Your task to perform on an android device: toggle notifications settings in the gmail app Image 0: 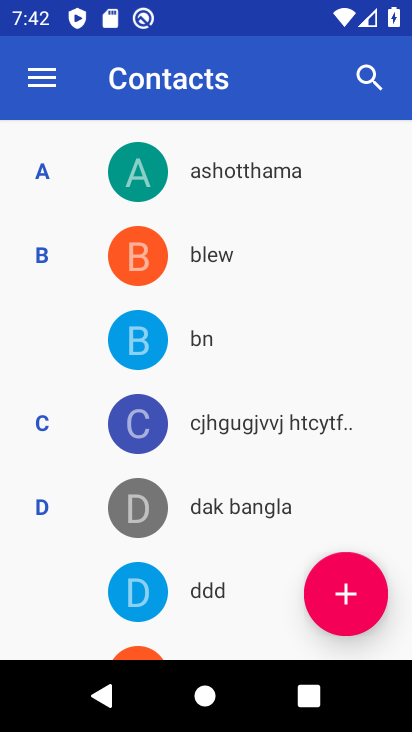
Step 0: press home button
Your task to perform on an android device: toggle notifications settings in the gmail app Image 1: 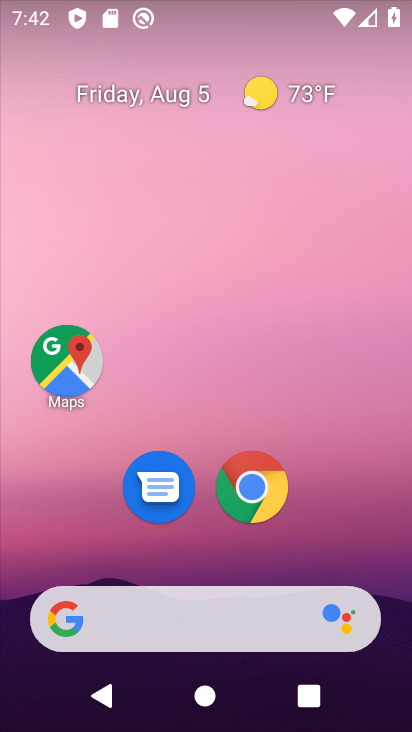
Step 1: drag from (210, 552) to (290, 53)
Your task to perform on an android device: toggle notifications settings in the gmail app Image 2: 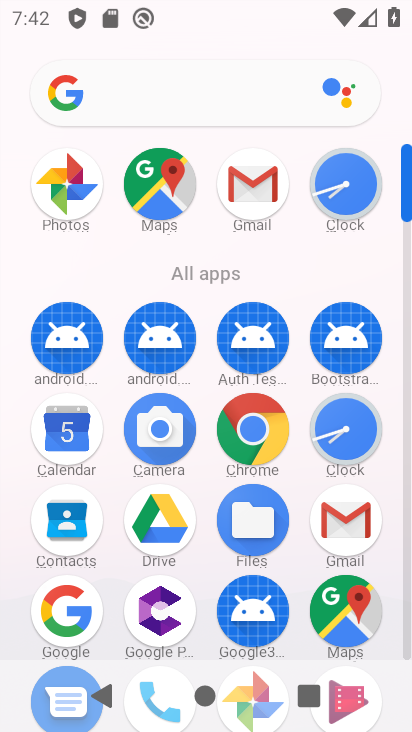
Step 2: click (246, 186)
Your task to perform on an android device: toggle notifications settings in the gmail app Image 3: 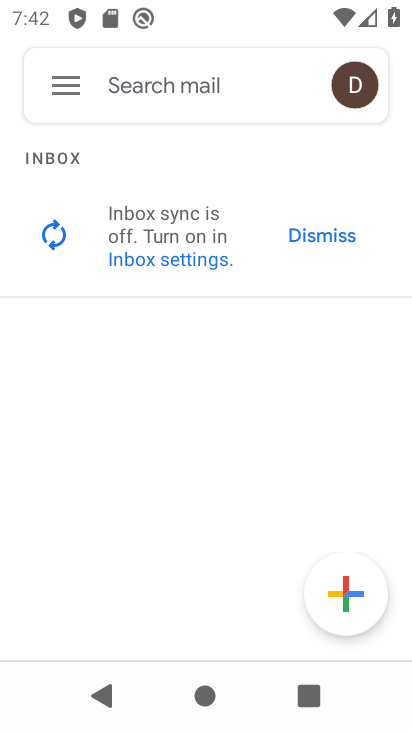
Step 3: click (71, 87)
Your task to perform on an android device: toggle notifications settings in the gmail app Image 4: 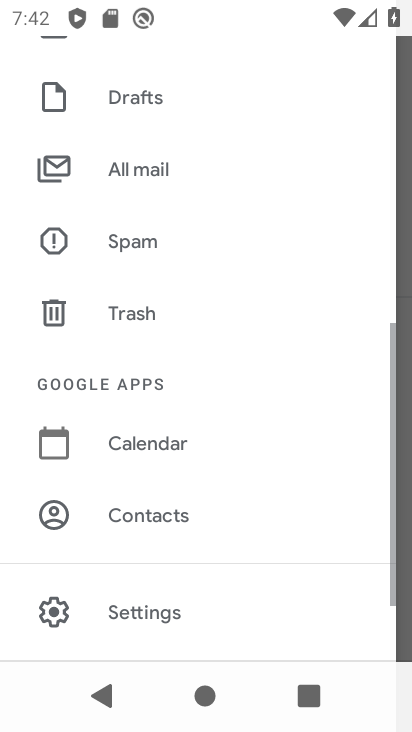
Step 4: click (162, 611)
Your task to perform on an android device: toggle notifications settings in the gmail app Image 5: 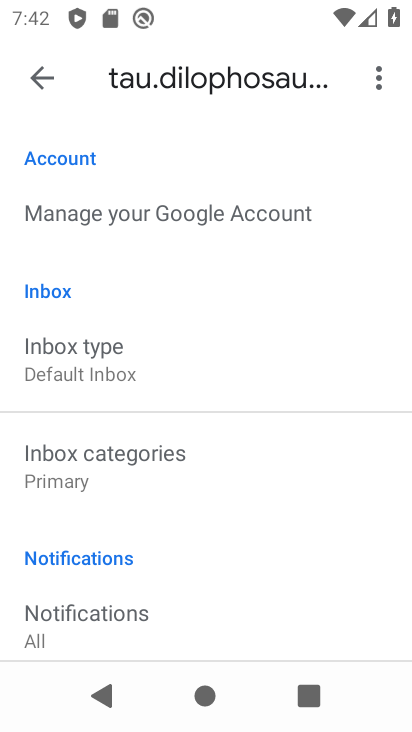
Step 5: drag from (164, 513) to (272, 231)
Your task to perform on an android device: toggle notifications settings in the gmail app Image 6: 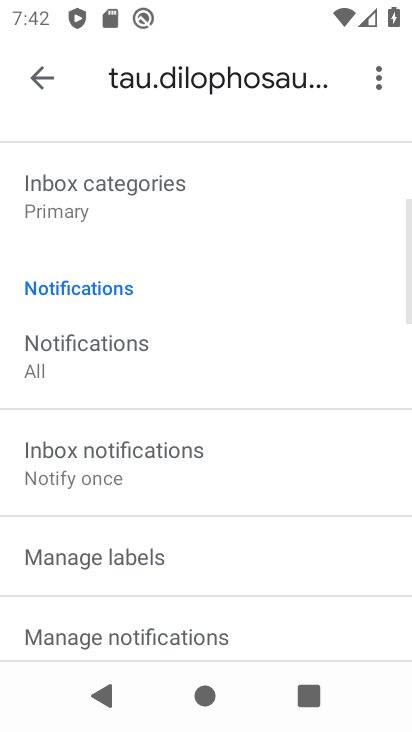
Step 6: click (93, 374)
Your task to perform on an android device: toggle notifications settings in the gmail app Image 7: 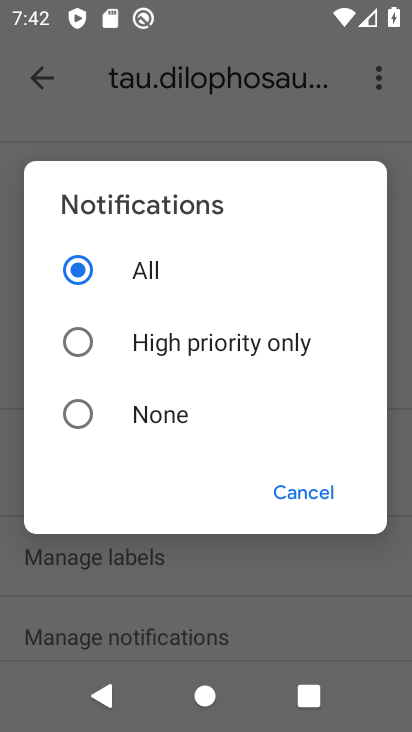
Step 7: click (81, 341)
Your task to perform on an android device: toggle notifications settings in the gmail app Image 8: 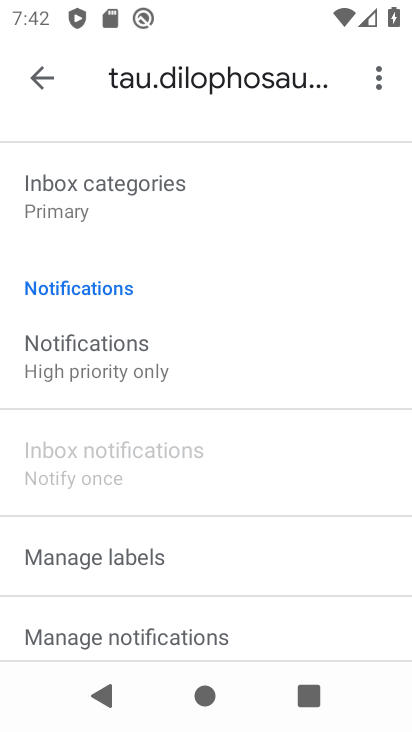
Step 8: task complete